Your task to perform on an android device: turn on the 12-hour format for clock Image 0: 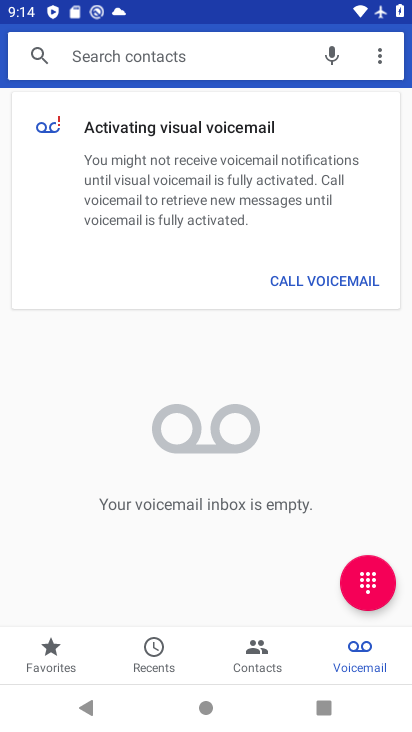
Step 0: press home button
Your task to perform on an android device: turn on the 12-hour format for clock Image 1: 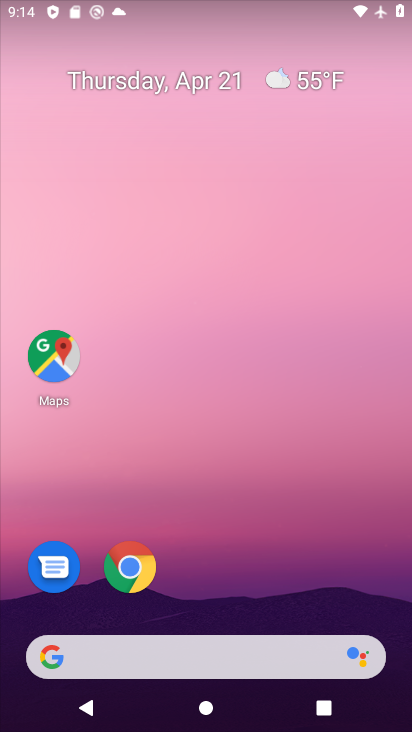
Step 1: drag from (362, 570) to (294, 66)
Your task to perform on an android device: turn on the 12-hour format for clock Image 2: 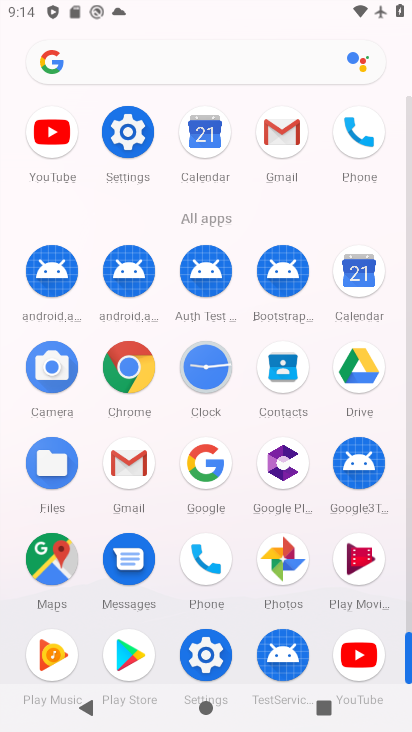
Step 2: click (201, 363)
Your task to perform on an android device: turn on the 12-hour format for clock Image 3: 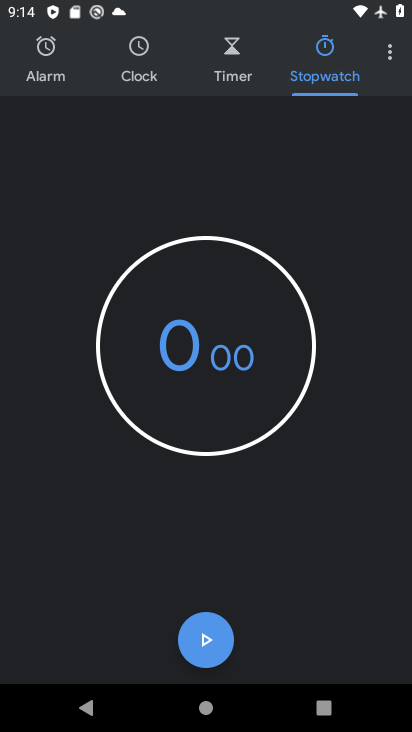
Step 3: click (386, 55)
Your task to perform on an android device: turn on the 12-hour format for clock Image 4: 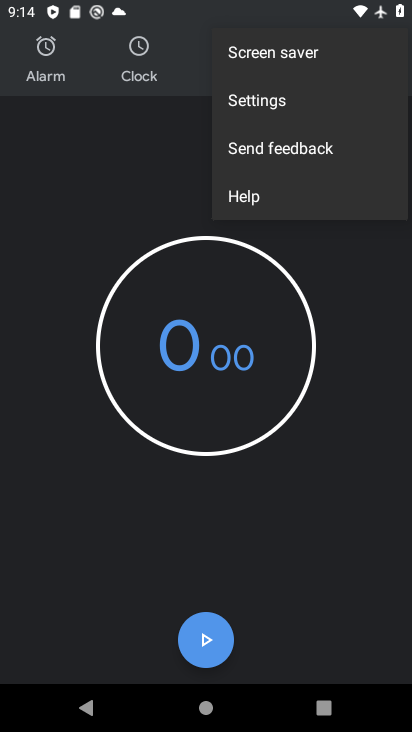
Step 4: click (253, 100)
Your task to perform on an android device: turn on the 12-hour format for clock Image 5: 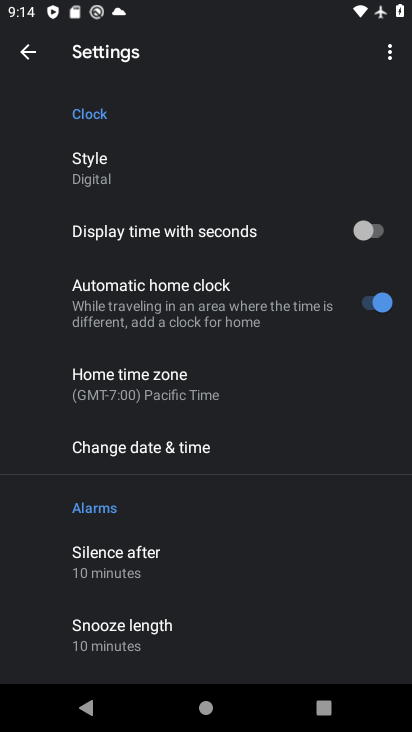
Step 5: click (165, 441)
Your task to perform on an android device: turn on the 12-hour format for clock Image 6: 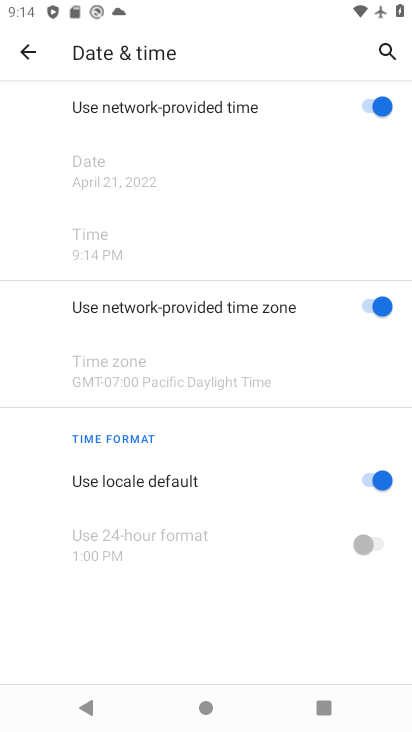
Step 6: task complete